Your task to perform on an android device: Open wifi settings Image 0: 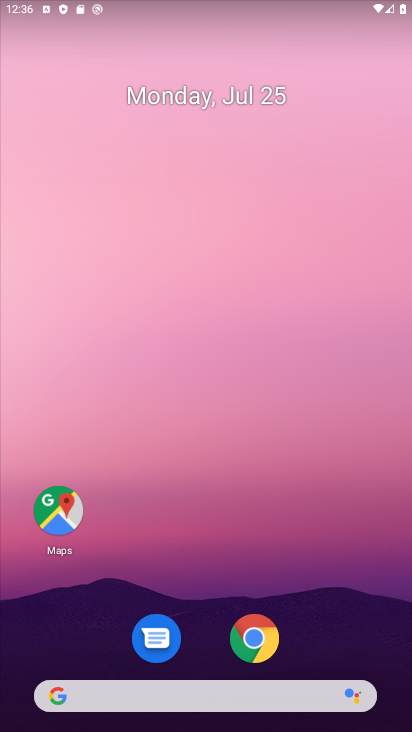
Step 0: drag from (187, 18) to (236, 692)
Your task to perform on an android device: Open wifi settings Image 1: 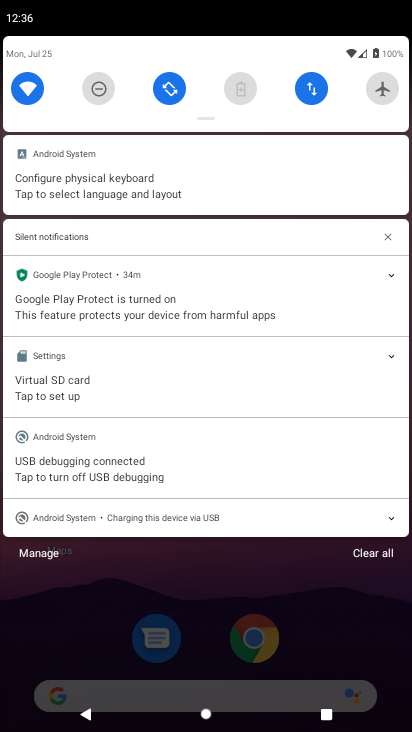
Step 1: click (37, 87)
Your task to perform on an android device: Open wifi settings Image 2: 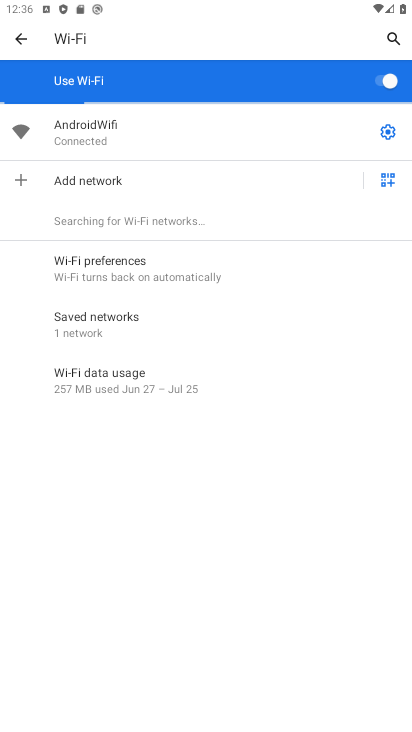
Step 2: task complete